Your task to perform on an android device: open device folders in google photos Image 0: 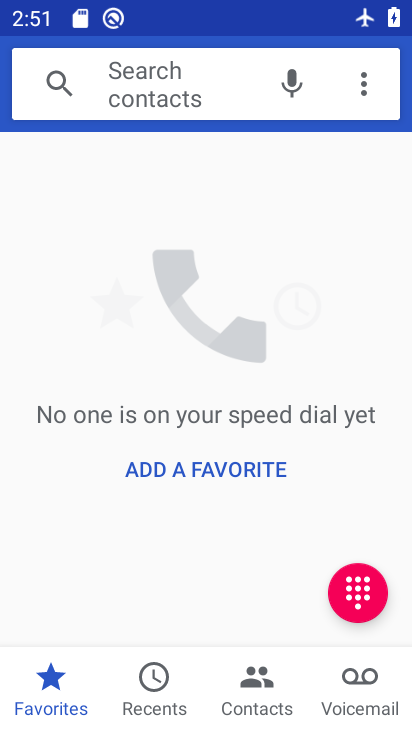
Step 0: press home button
Your task to perform on an android device: open device folders in google photos Image 1: 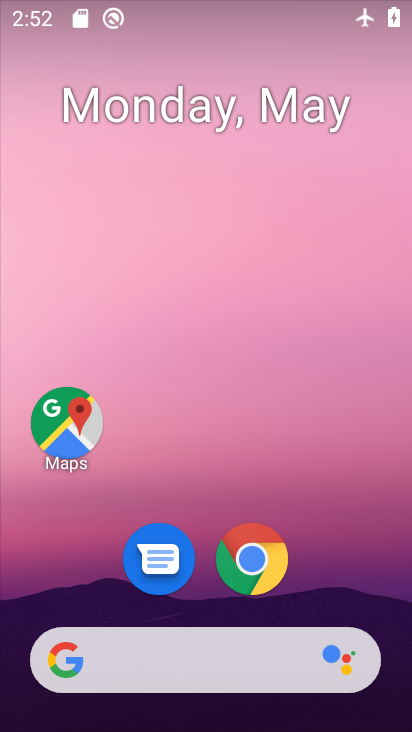
Step 1: drag from (293, 620) to (290, 288)
Your task to perform on an android device: open device folders in google photos Image 2: 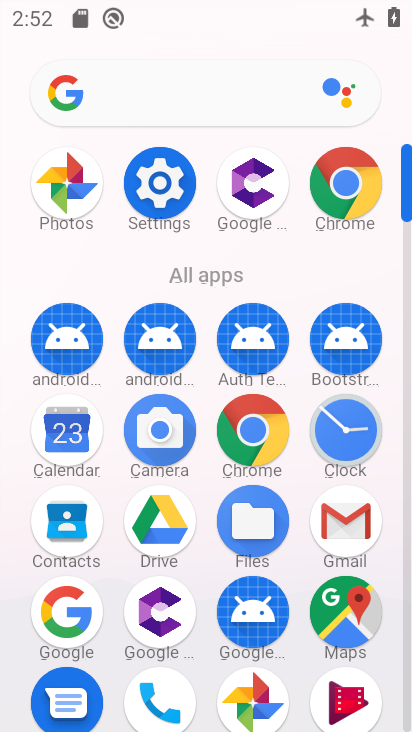
Step 2: click (247, 686)
Your task to perform on an android device: open device folders in google photos Image 3: 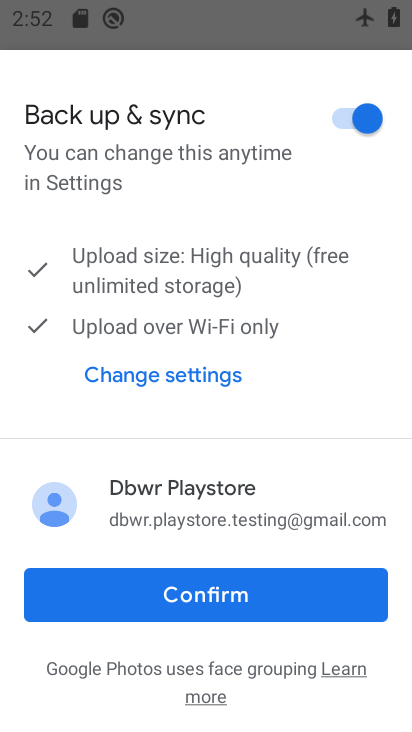
Step 3: click (212, 591)
Your task to perform on an android device: open device folders in google photos Image 4: 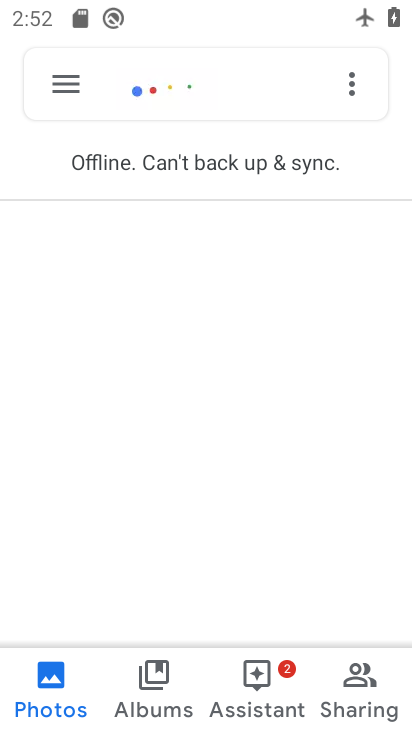
Step 4: click (61, 94)
Your task to perform on an android device: open device folders in google photos Image 5: 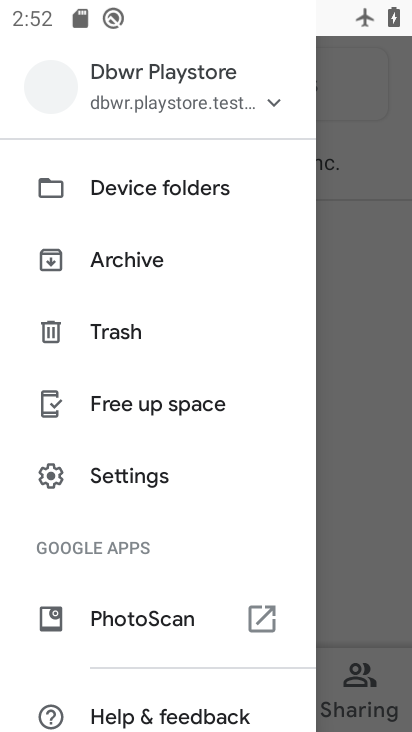
Step 5: click (136, 190)
Your task to perform on an android device: open device folders in google photos Image 6: 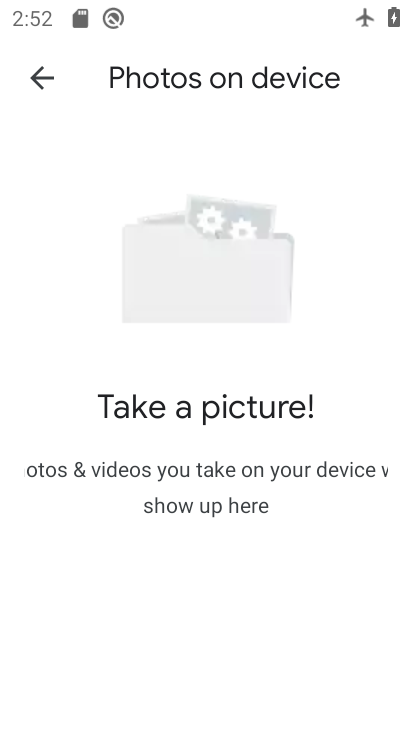
Step 6: task complete